Your task to perform on an android device: turn off sleep mode Image 0: 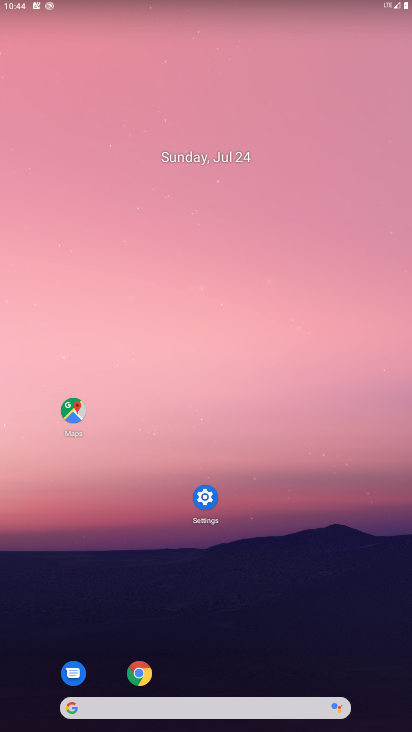
Step 0: click (198, 505)
Your task to perform on an android device: turn off sleep mode Image 1: 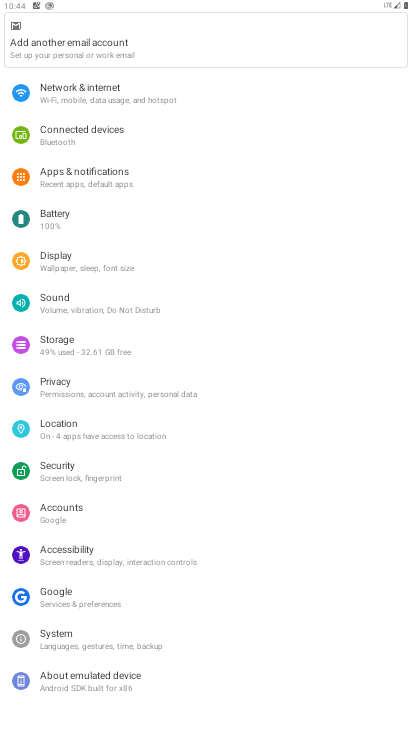
Step 1: task complete